Your task to perform on an android device: choose inbox layout in the gmail app Image 0: 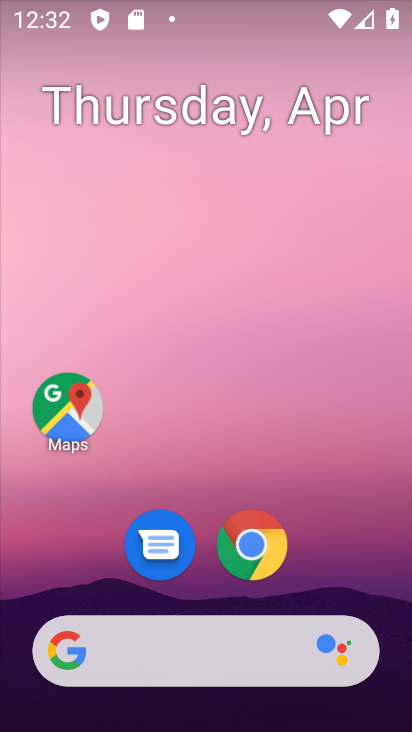
Step 0: drag from (365, 559) to (296, 16)
Your task to perform on an android device: choose inbox layout in the gmail app Image 1: 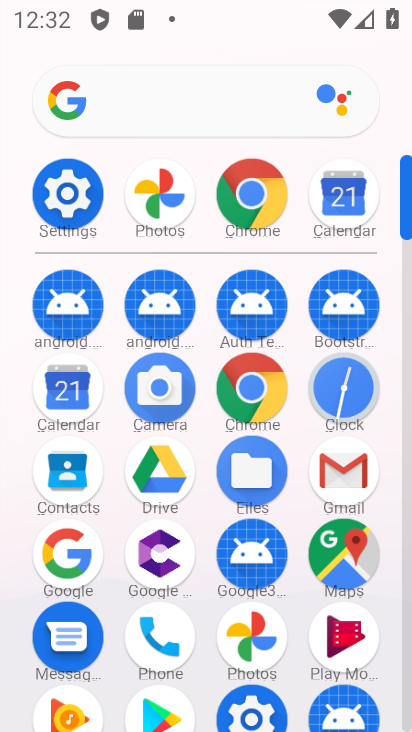
Step 1: click (348, 472)
Your task to perform on an android device: choose inbox layout in the gmail app Image 2: 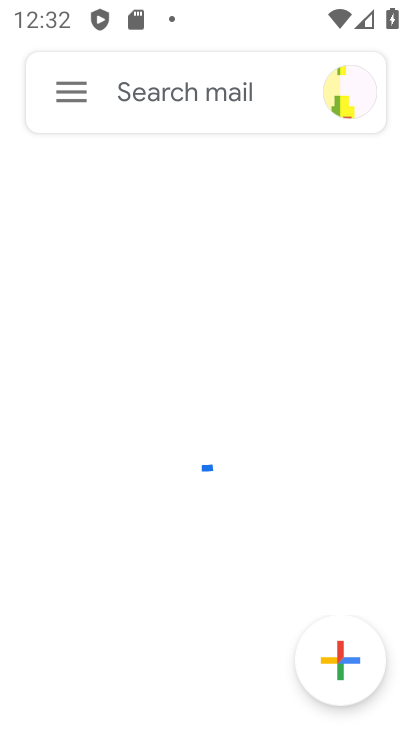
Step 2: click (66, 93)
Your task to perform on an android device: choose inbox layout in the gmail app Image 3: 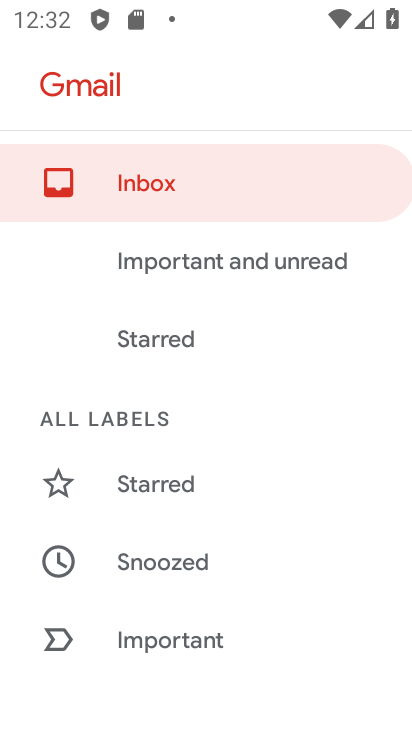
Step 3: drag from (148, 615) to (228, 206)
Your task to perform on an android device: choose inbox layout in the gmail app Image 4: 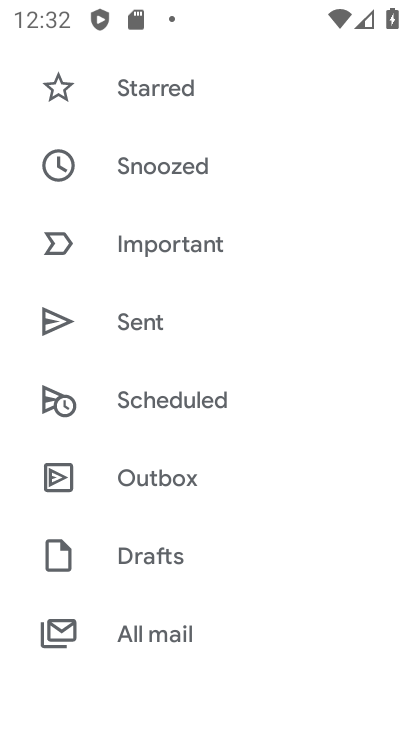
Step 4: drag from (197, 594) to (255, 260)
Your task to perform on an android device: choose inbox layout in the gmail app Image 5: 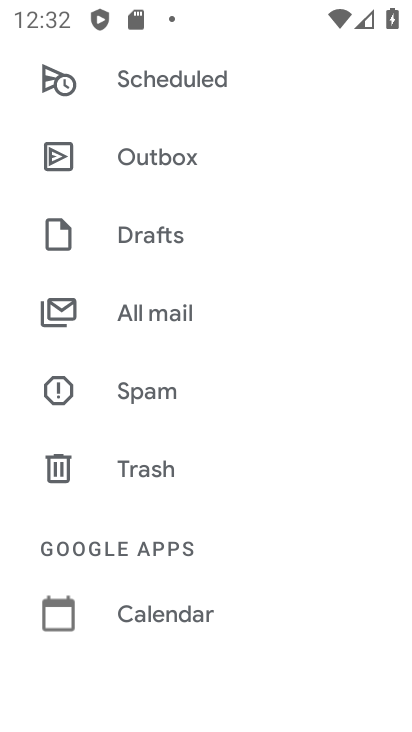
Step 5: drag from (189, 517) to (245, 258)
Your task to perform on an android device: choose inbox layout in the gmail app Image 6: 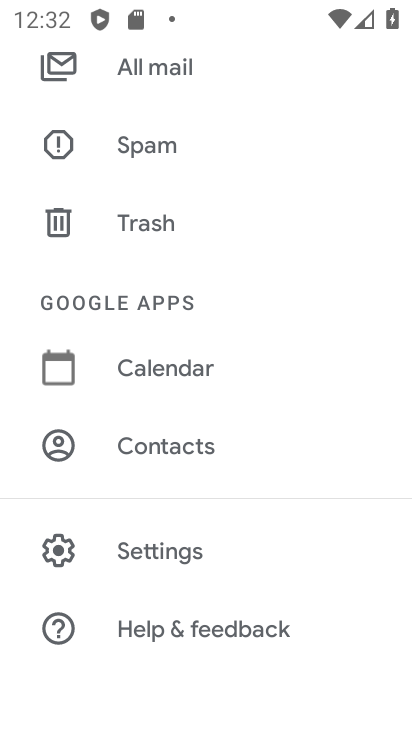
Step 6: click (150, 550)
Your task to perform on an android device: choose inbox layout in the gmail app Image 7: 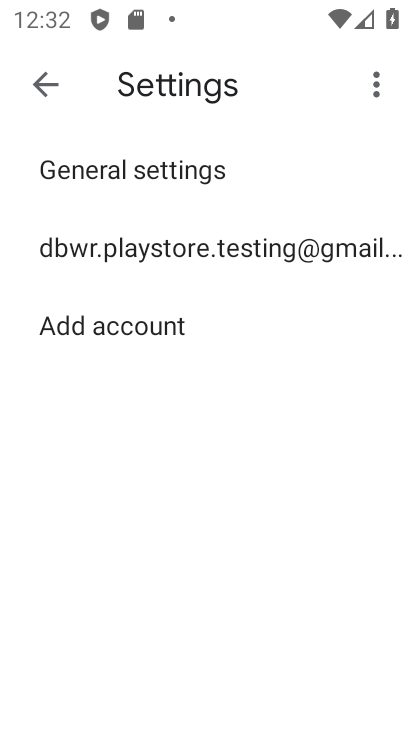
Step 7: click (292, 263)
Your task to perform on an android device: choose inbox layout in the gmail app Image 8: 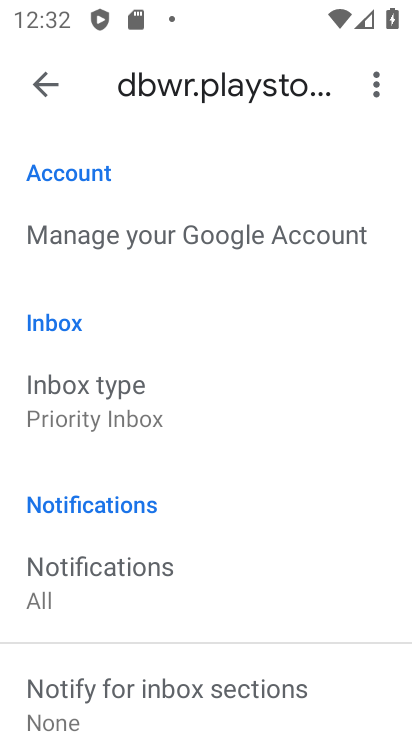
Step 8: click (112, 396)
Your task to perform on an android device: choose inbox layout in the gmail app Image 9: 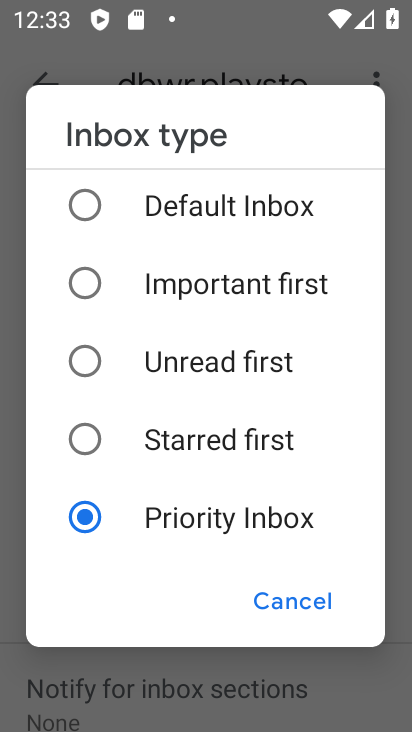
Step 9: task complete